Your task to perform on an android device: open app "WhatsApp Messenger" Image 0: 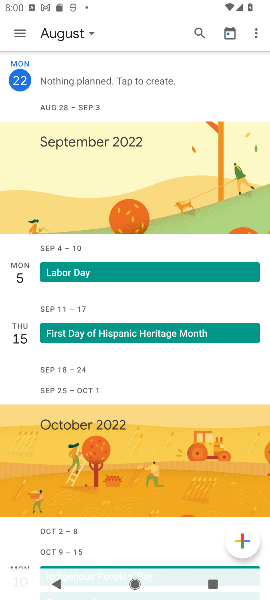
Step 0: press home button
Your task to perform on an android device: open app "WhatsApp Messenger" Image 1: 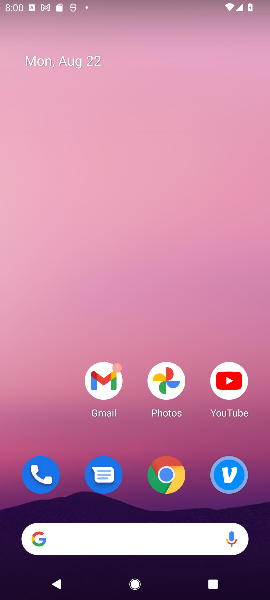
Step 1: drag from (126, 498) to (132, 262)
Your task to perform on an android device: open app "WhatsApp Messenger" Image 2: 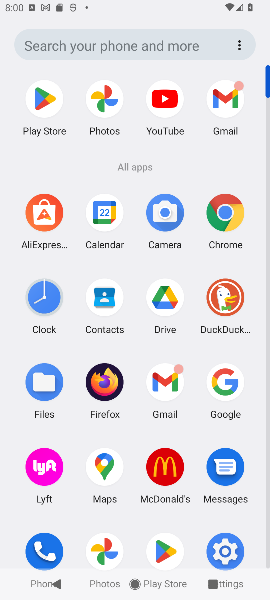
Step 2: click (43, 106)
Your task to perform on an android device: open app "WhatsApp Messenger" Image 3: 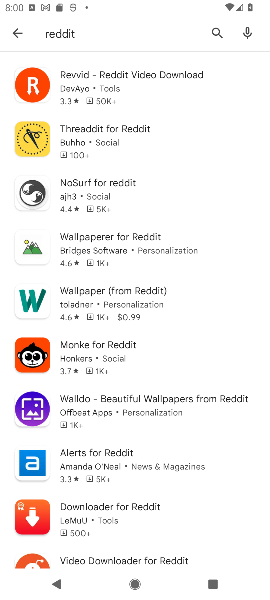
Step 3: click (112, 42)
Your task to perform on an android device: open app "WhatsApp Messenger" Image 4: 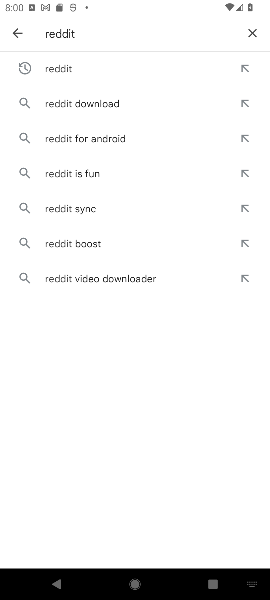
Step 4: click (252, 25)
Your task to perform on an android device: open app "WhatsApp Messenger" Image 5: 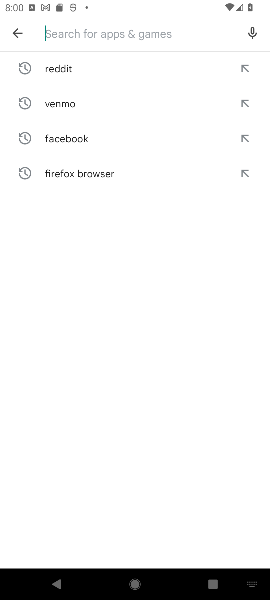
Step 5: type "whatsapp messenger"
Your task to perform on an android device: open app "WhatsApp Messenger" Image 6: 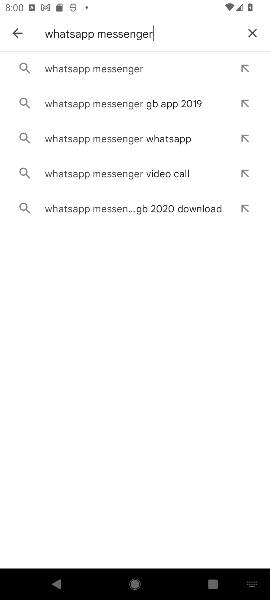
Step 6: click (99, 69)
Your task to perform on an android device: open app "WhatsApp Messenger" Image 7: 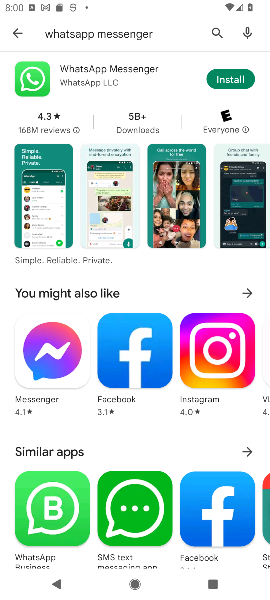
Step 7: task complete